Your task to perform on an android device: Open the calendar app, open the side menu, and click the "Day" option Image 0: 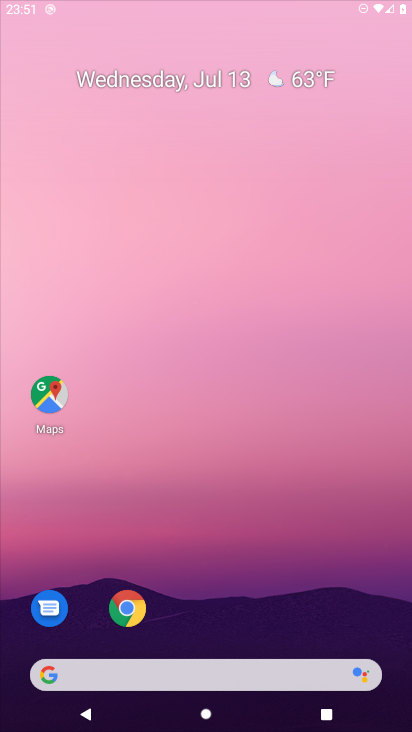
Step 0: press home button
Your task to perform on an android device: Open the calendar app, open the side menu, and click the "Day" option Image 1: 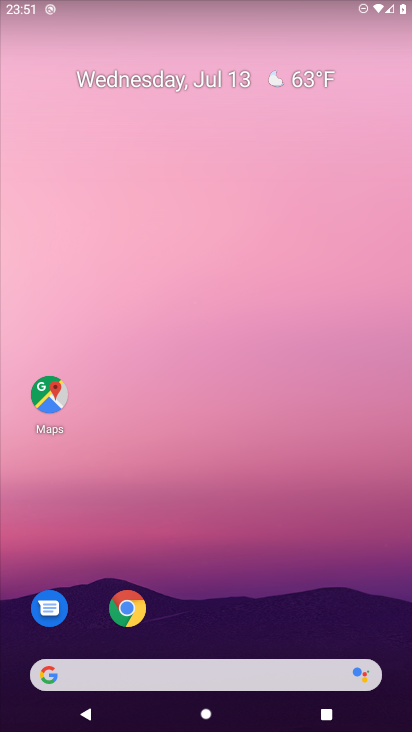
Step 1: drag from (261, 632) to (203, 139)
Your task to perform on an android device: Open the calendar app, open the side menu, and click the "Day" option Image 2: 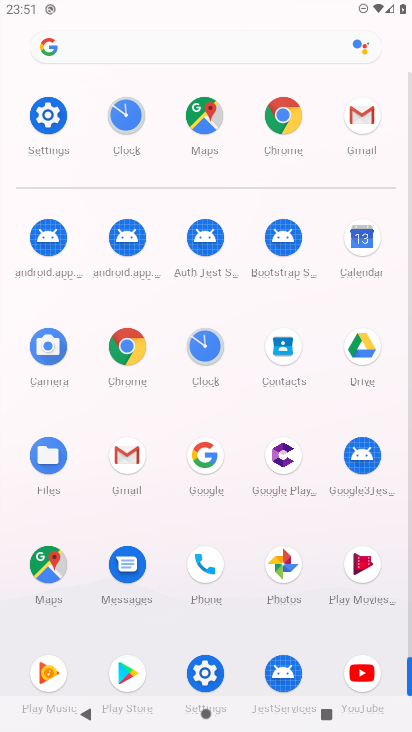
Step 2: click (362, 239)
Your task to perform on an android device: Open the calendar app, open the side menu, and click the "Day" option Image 3: 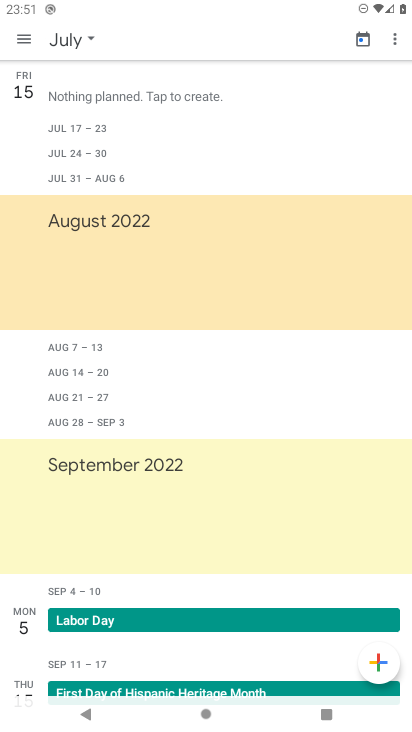
Step 3: click (20, 39)
Your task to perform on an android device: Open the calendar app, open the side menu, and click the "Day" option Image 4: 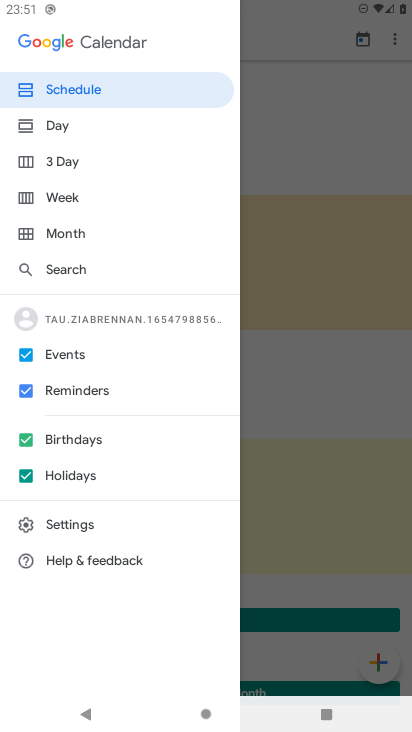
Step 4: click (58, 130)
Your task to perform on an android device: Open the calendar app, open the side menu, and click the "Day" option Image 5: 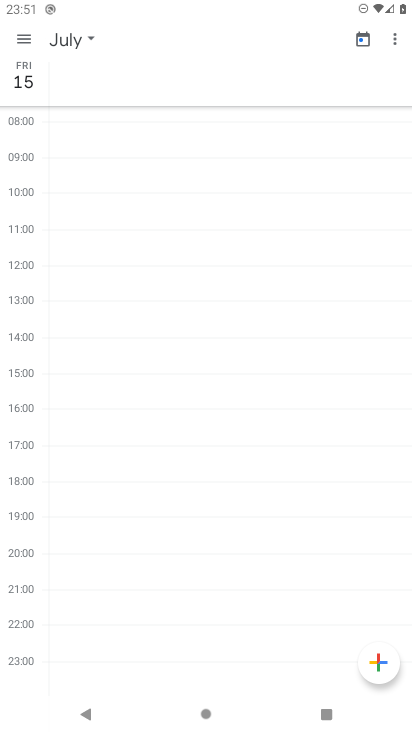
Step 5: task complete